Your task to perform on an android device: What's the weather today? Image 0: 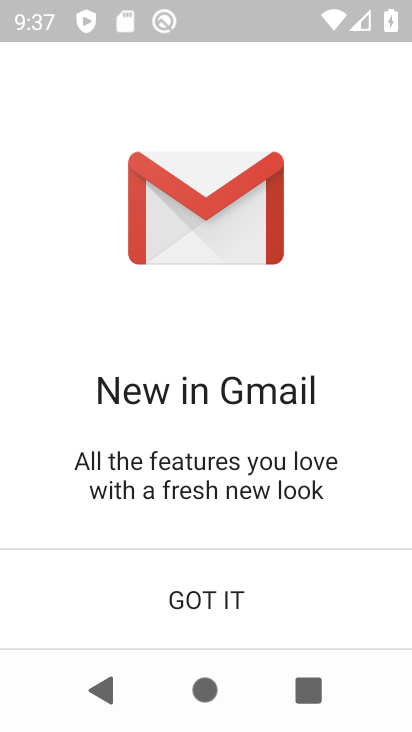
Step 0: press home button
Your task to perform on an android device: What's the weather today? Image 1: 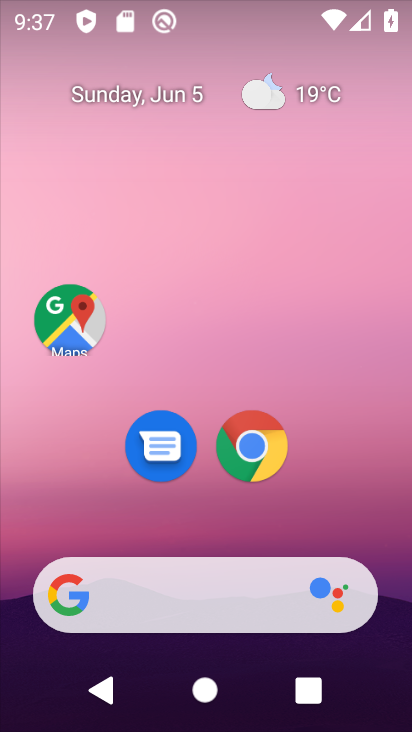
Step 1: click (135, 601)
Your task to perform on an android device: What's the weather today? Image 2: 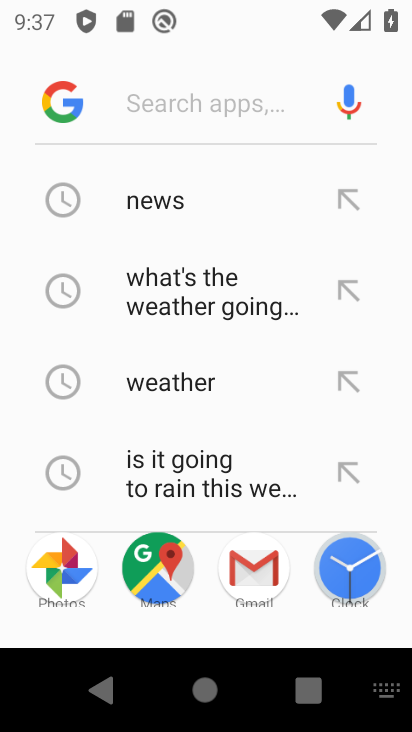
Step 2: type "what's the weather today"
Your task to perform on an android device: What's the weather today? Image 3: 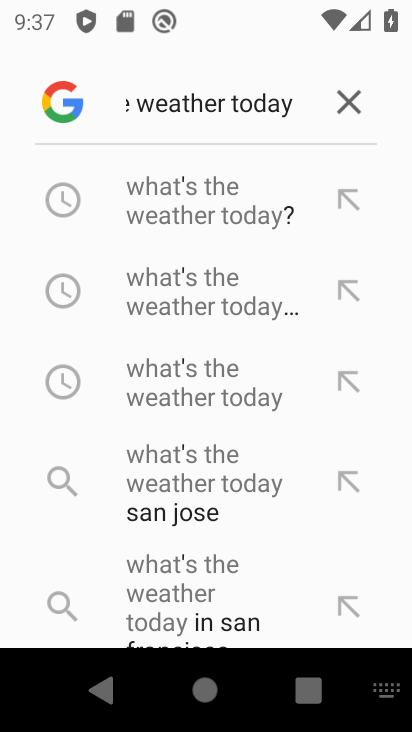
Step 3: click (223, 219)
Your task to perform on an android device: What's the weather today? Image 4: 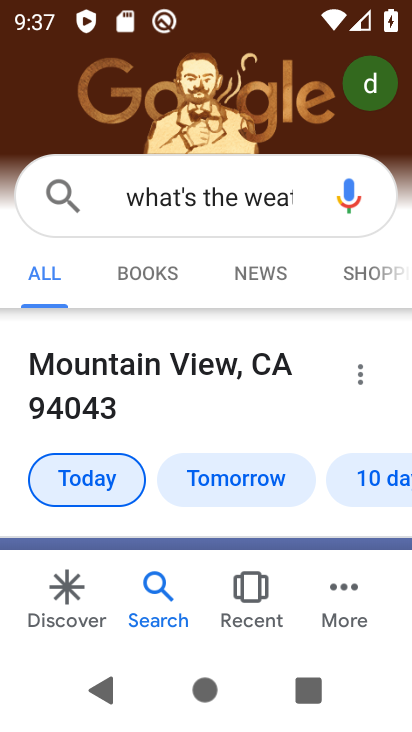
Step 4: task complete